Your task to perform on an android device: read, delete, or share a saved page in the chrome app Image 0: 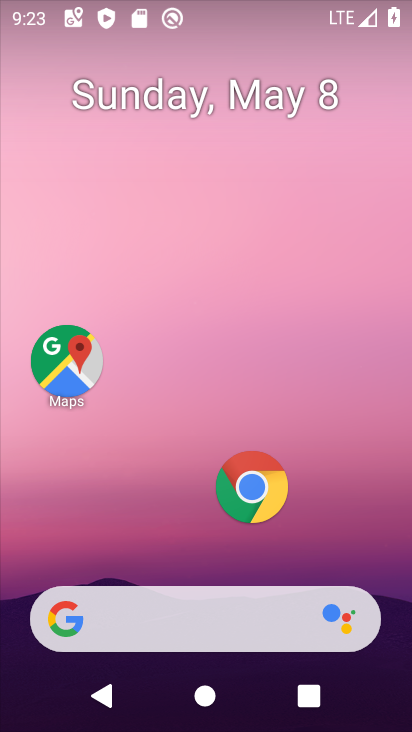
Step 0: click (259, 487)
Your task to perform on an android device: read, delete, or share a saved page in the chrome app Image 1: 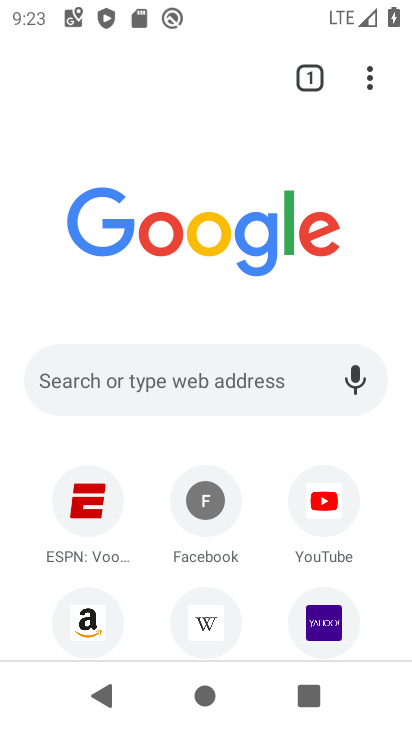
Step 1: click (365, 83)
Your task to perform on an android device: read, delete, or share a saved page in the chrome app Image 2: 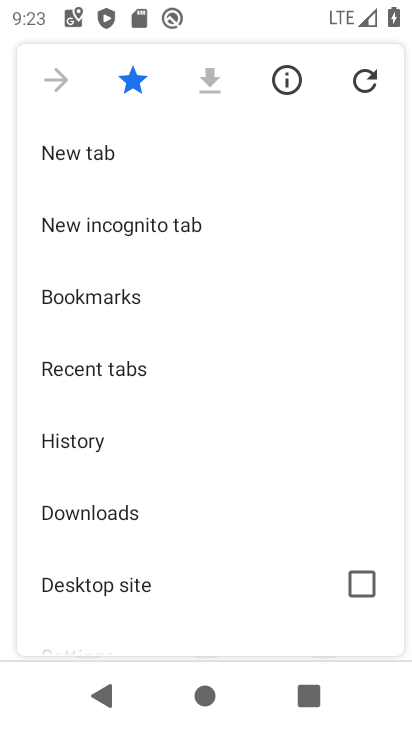
Step 2: click (115, 505)
Your task to perform on an android device: read, delete, or share a saved page in the chrome app Image 3: 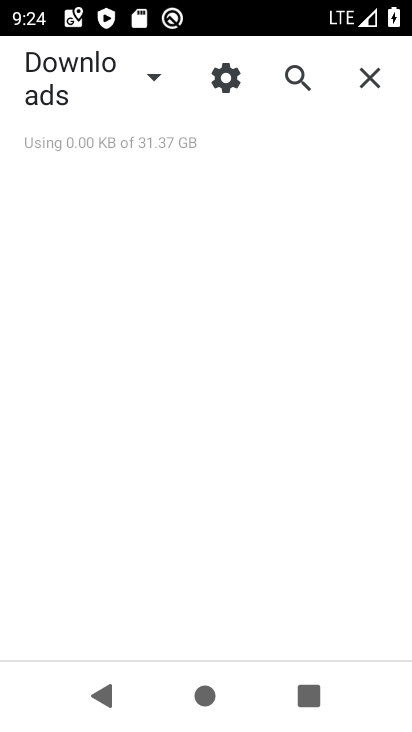
Step 3: task complete